Your task to perform on an android device: Open the stopwatch Image 0: 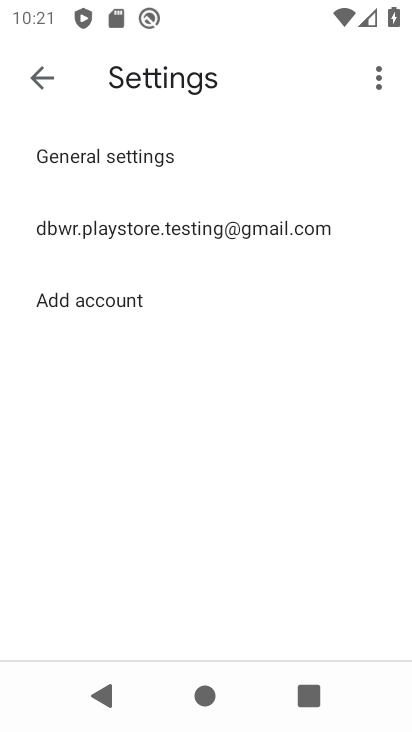
Step 0: press back button
Your task to perform on an android device: Open the stopwatch Image 1: 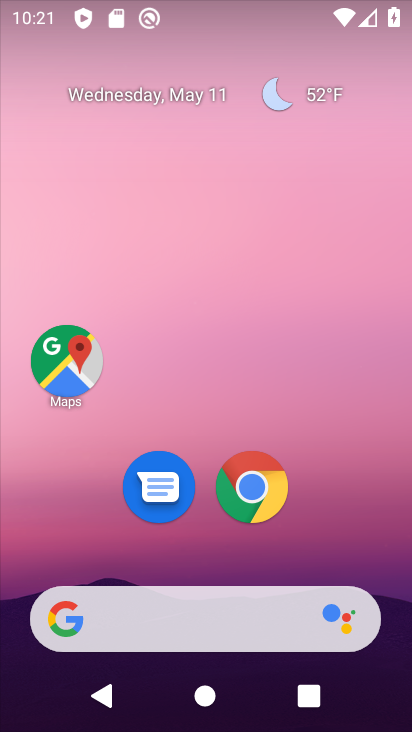
Step 1: drag from (351, 570) to (270, 44)
Your task to perform on an android device: Open the stopwatch Image 2: 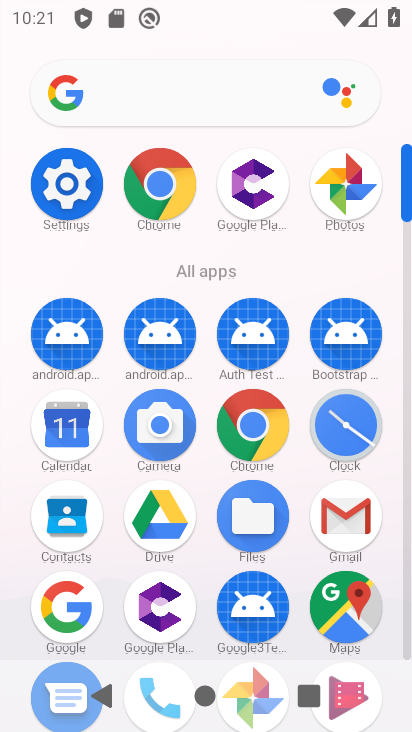
Step 2: click (346, 418)
Your task to perform on an android device: Open the stopwatch Image 3: 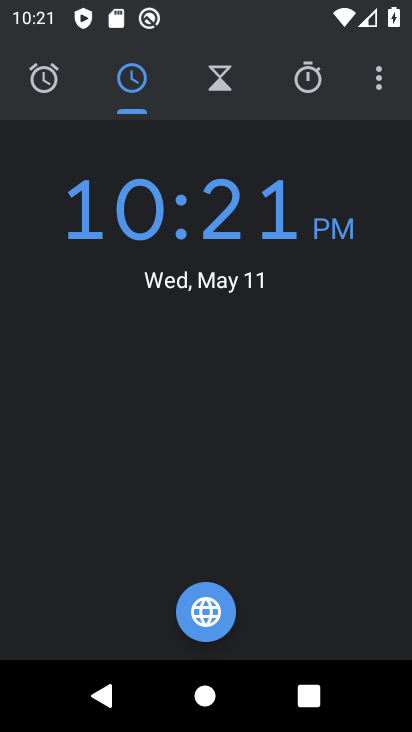
Step 3: click (301, 64)
Your task to perform on an android device: Open the stopwatch Image 4: 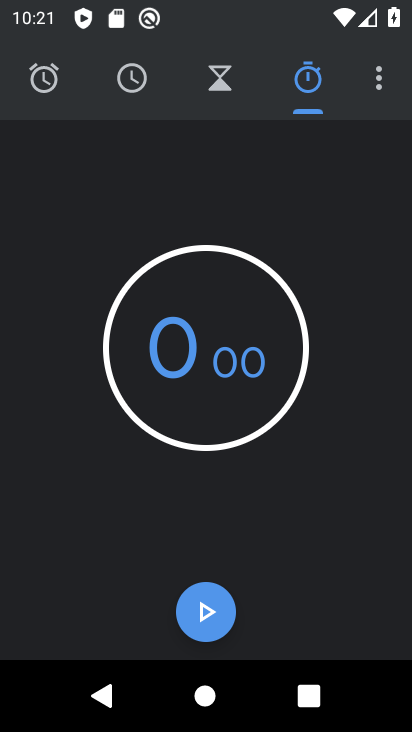
Step 4: task complete